Your task to perform on an android device: toggle show notifications on the lock screen Image 0: 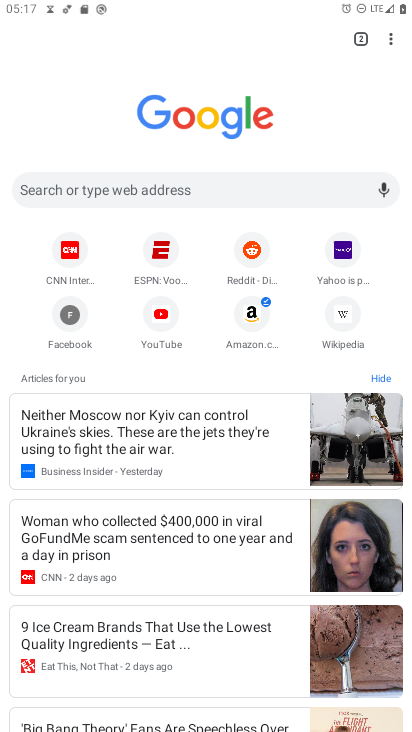
Step 0: press home button
Your task to perform on an android device: toggle show notifications on the lock screen Image 1: 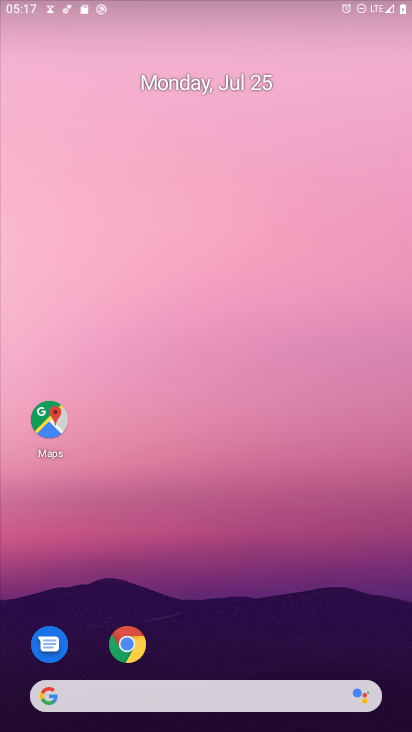
Step 1: drag from (323, 604) to (224, 61)
Your task to perform on an android device: toggle show notifications on the lock screen Image 2: 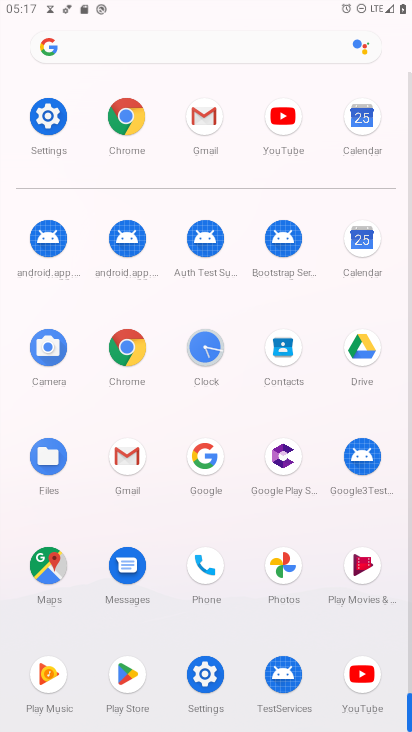
Step 2: click (45, 114)
Your task to perform on an android device: toggle show notifications on the lock screen Image 3: 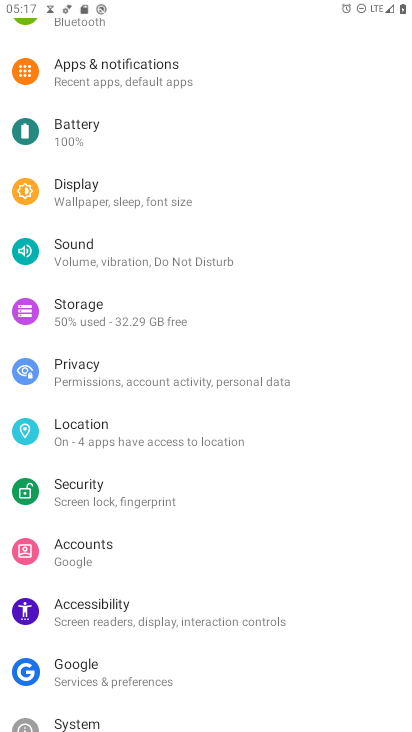
Step 3: click (137, 72)
Your task to perform on an android device: toggle show notifications on the lock screen Image 4: 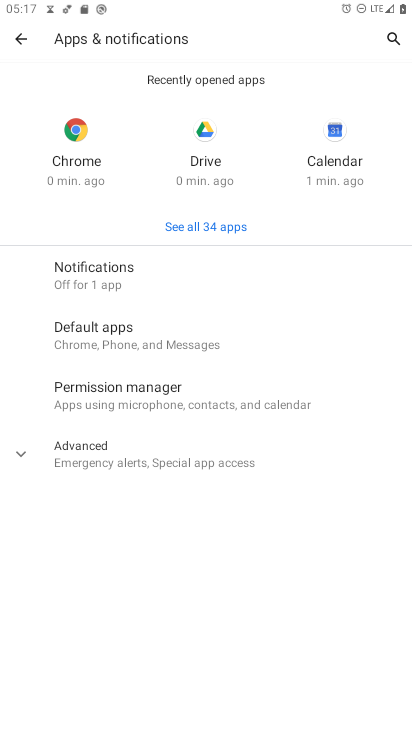
Step 4: click (94, 277)
Your task to perform on an android device: toggle show notifications on the lock screen Image 5: 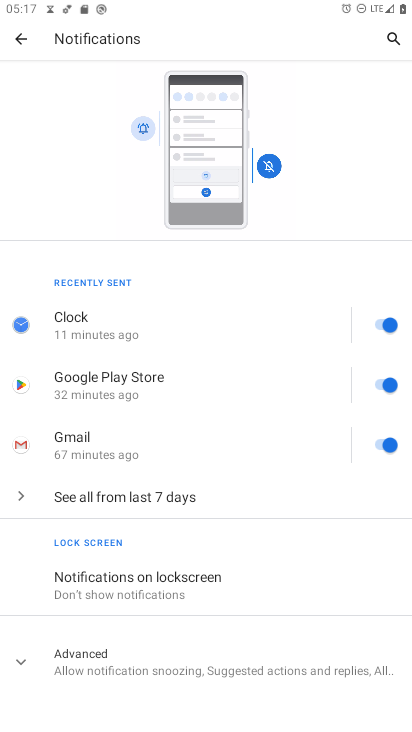
Step 5: click (145, 595)
Your task to perform on an android device: toggle show notifications on the lock screen Image 6: 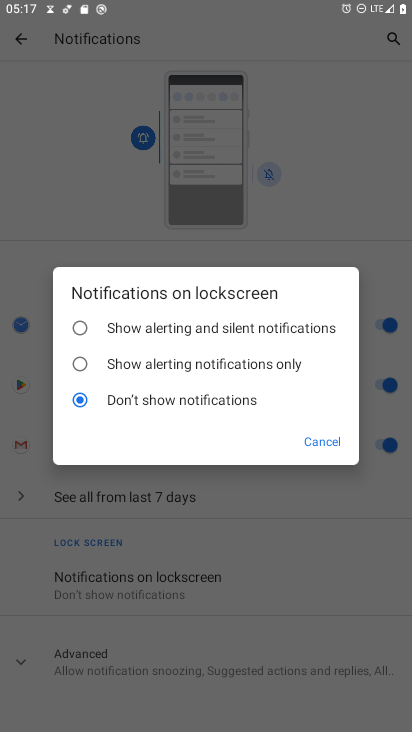
Step 6: click (82, 325)
Your task to perform on an android device: toggle show notifications on the lock screen Image 7: 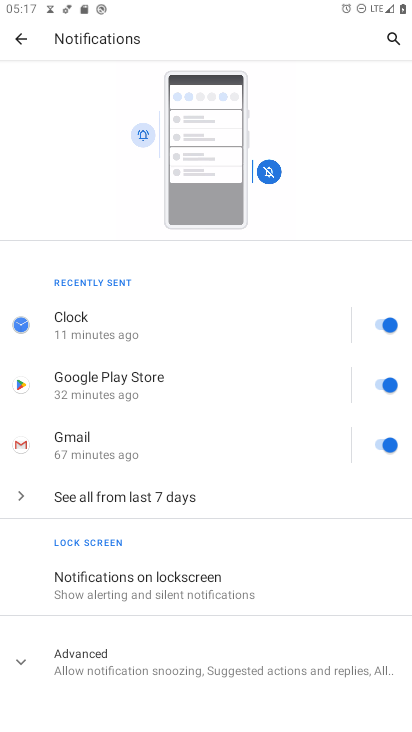
Step 7: task complete